Your task to perform on an android device: What is the news today? Image 0: 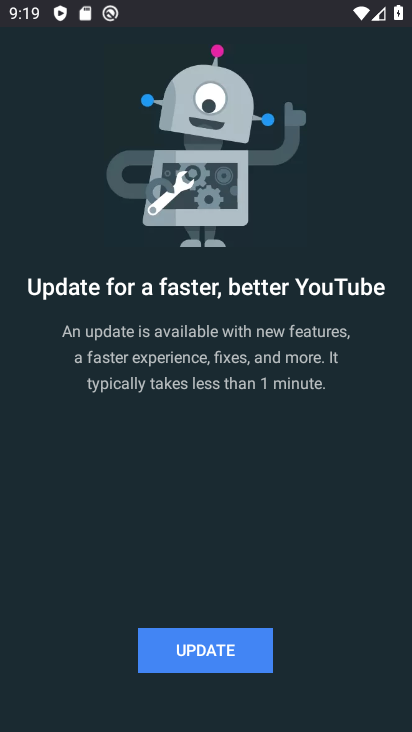
Step 0: press home button
Your task to perform on an android device: What is the news today? Image 1: 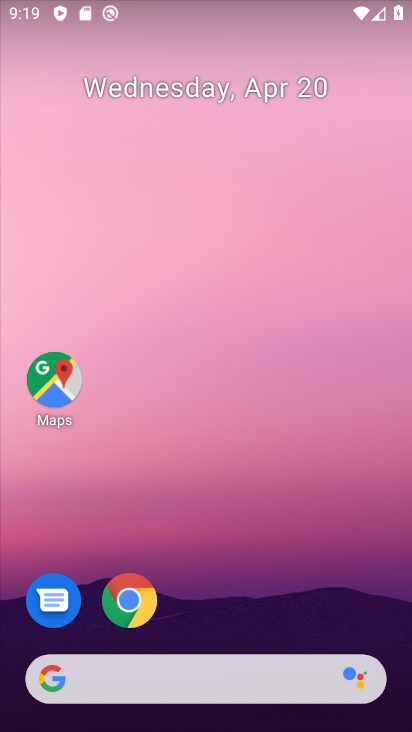
Step 1: task complete